Your task to perform on an android device: toggle notifications settings in the gmail app Image 0: 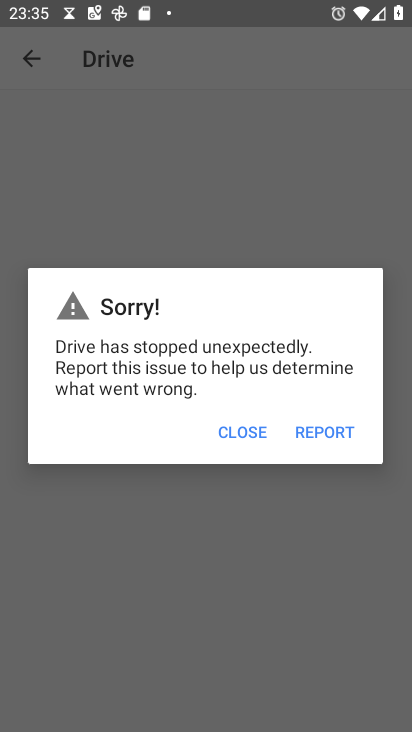
Step 0: press home button
Your task to perform on an android device: toggle notifications settings in the gmail app Image 1: 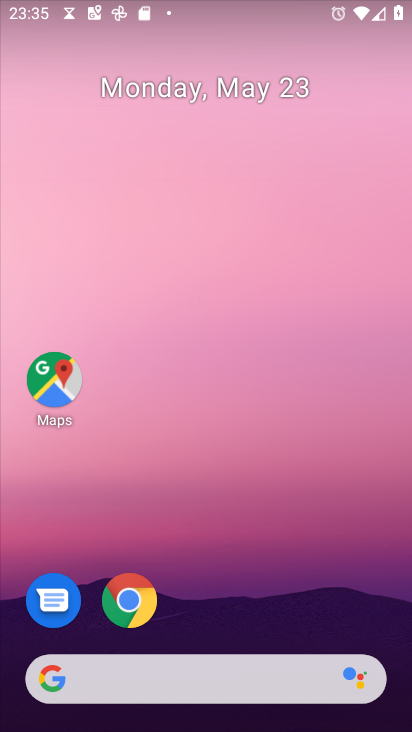
Step 1: drag from (220, 729) to (195, 6)
Your task to perform on an android device: toggle notifications settings in the gmail app Image 2: 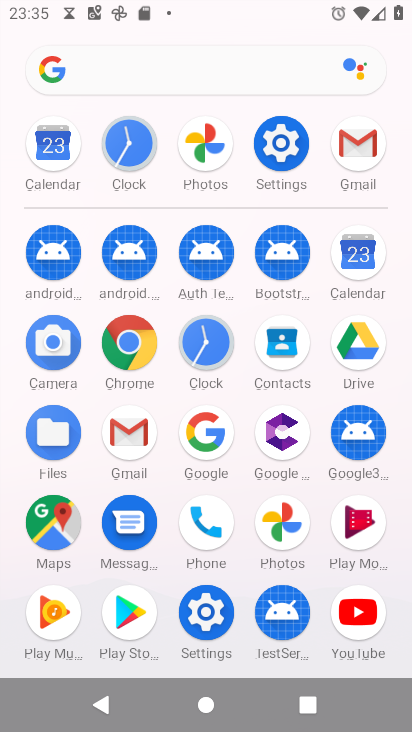
Step 2: click (121, 434)
Your task to perform on an android device: toggle notifications settings in the gmail app Image 3: 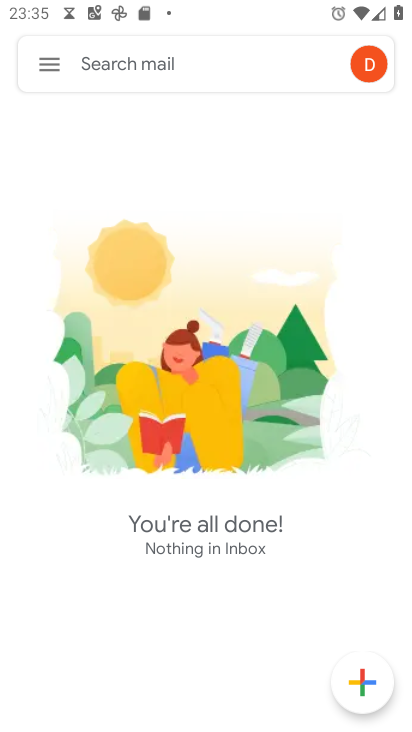
Step 3: click (51, 63)
Your task to perform on an android device: toggle notifications settings in the gmail app Image 4: 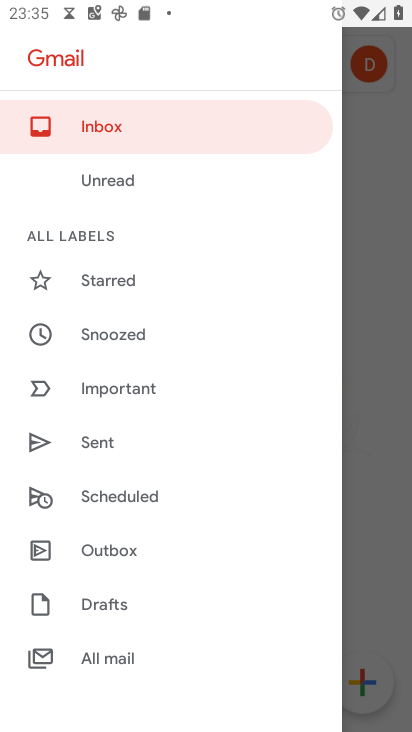
Step 4: drag from (110, 635) to (112, 304)
Your task to perform on an android device: toggle notifications settings in the gmail app Image 5: 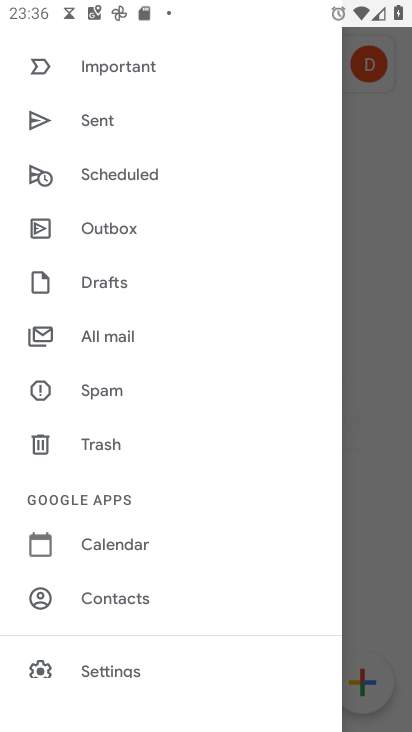
Step 5: click (114, 669)
Your task to perform on an android device: toggle notifications settings in the gmail app Image 6: 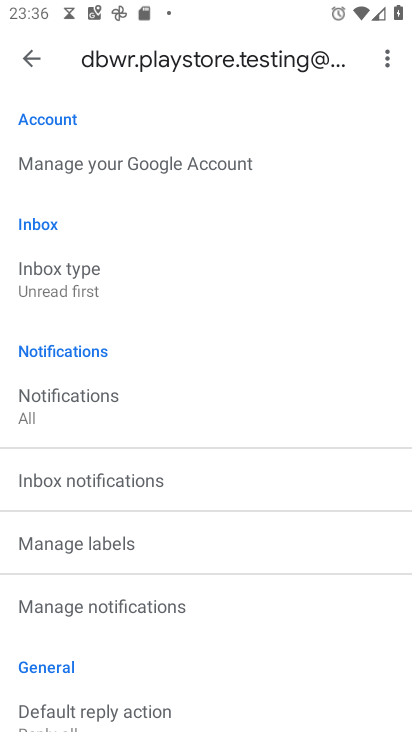
Step 6: click (87, 403)
Your task to perform on an android device: toggle notifications settings in the gmail app Image 7: 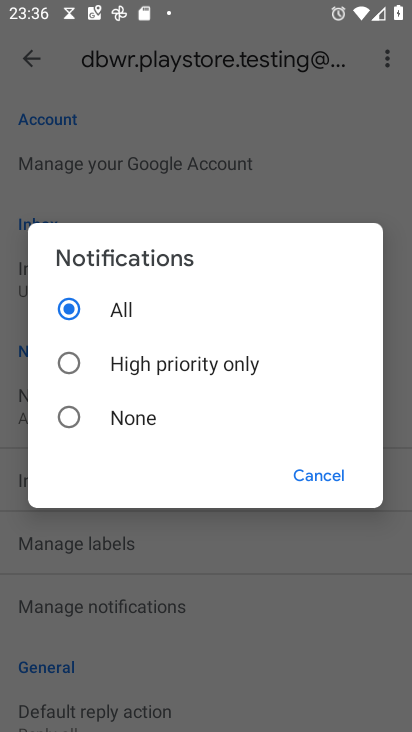
Step 7: click (63, 360)
Your task to perform on an android device: toggle notifications settings in the gmail app Image 8: 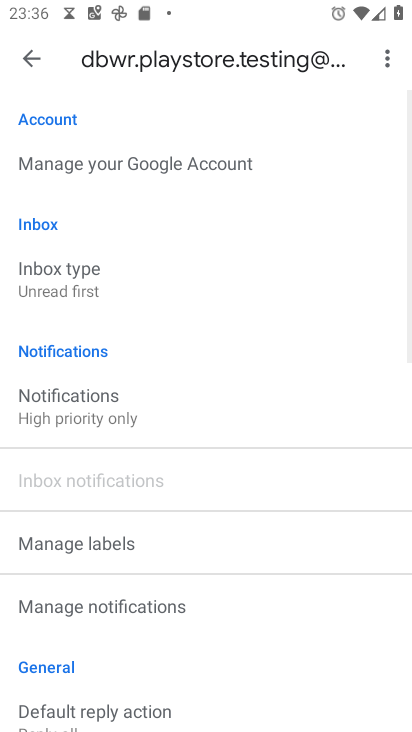
Step 8: task complete